Your task to perform on an android device: Find coffee shops on Maps Image 0: 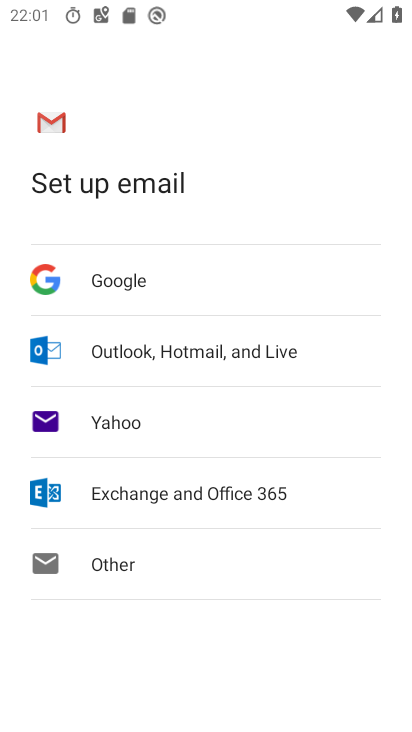
Step 0: press home button
Your task to perform on an android device: Find coffee shops on Maps Image 1: 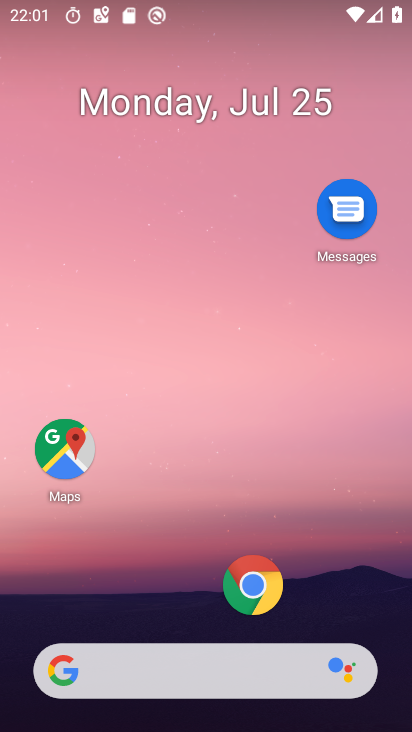
Step 1: click (66, 441)
Your task to perform on an android device: Find coffee shops on Maps Image 2: 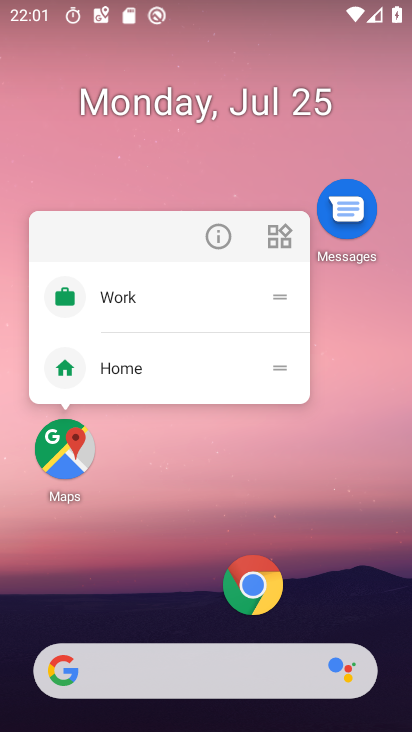
Step 2: click (64, 443)
Your task to perform on an android device: Find coffee shops on Maps Image 3: 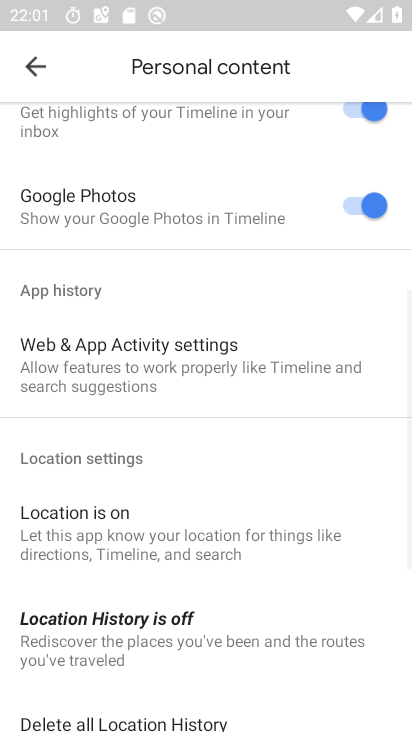
Step 3: click (30, 65)
Your task to perform on an android device: Find coffee shops on Maps Image 4: 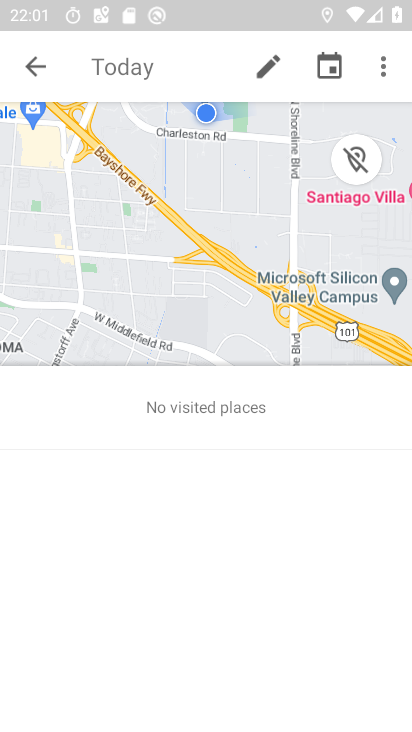
Step 4: click (30, 66)
Your task to perform on an android device: Find coffee shops on Maps Image 5: 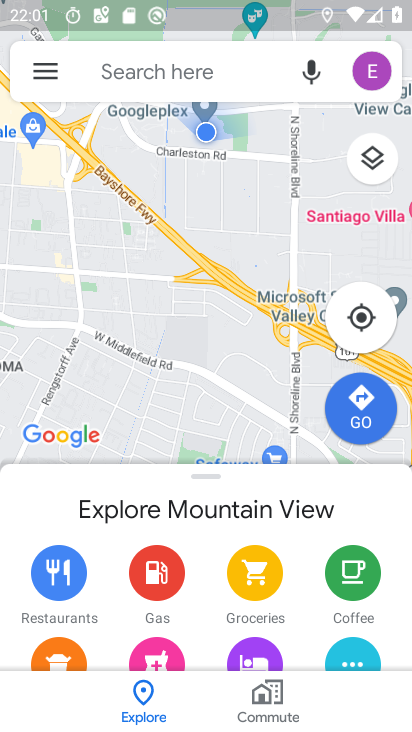
Step 5: click (188, 64)
Your task to perform on an android device: Find coffee shops on Maps Image 6: 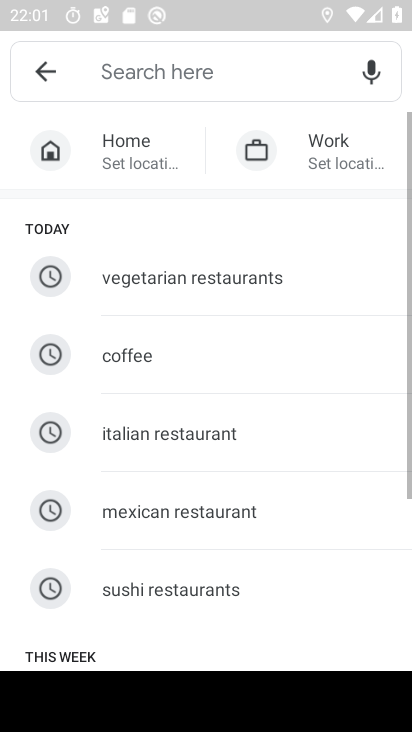
Step 6: click (163, 367)
Your task to perform on an android device: Find coffee shops on Maps Image 7: 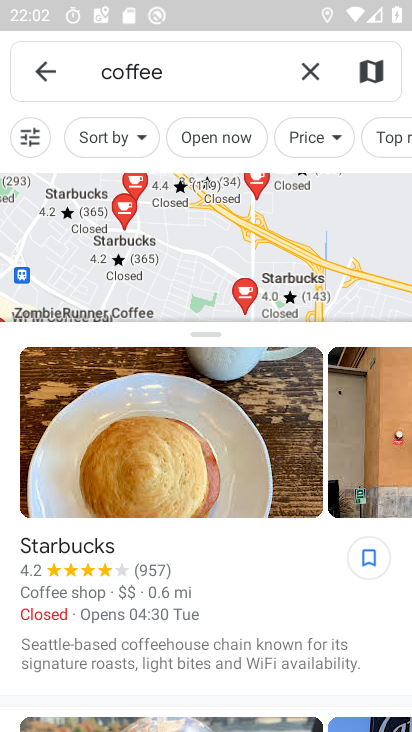
Step 7: task complete